Your task to perform on an android device: Open calendar and show me the third week of next month Image 0: 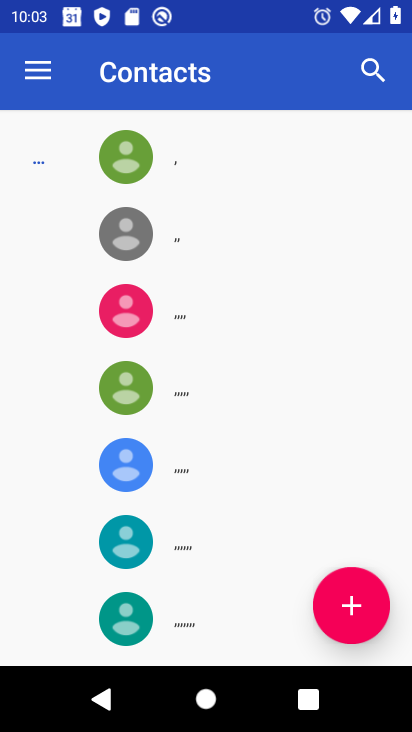
Step 0: press home button
Your task to perform on an android device: Open calendar and show me the third week of next month Image 1: 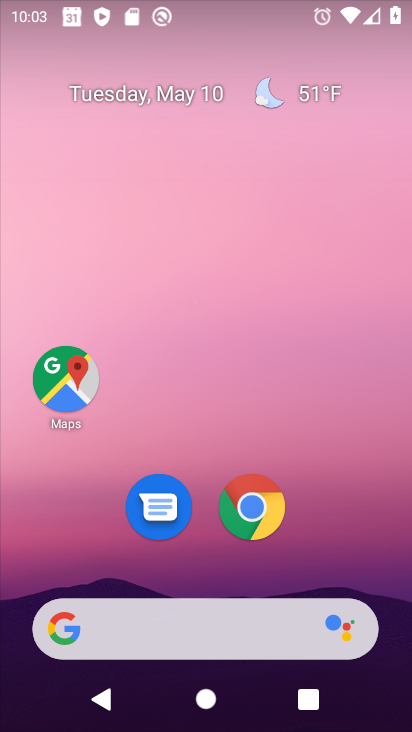
Step 1: click (142, 81)
Your task to perform on an android device: Open calendar and show me the third week of next month Image 2: 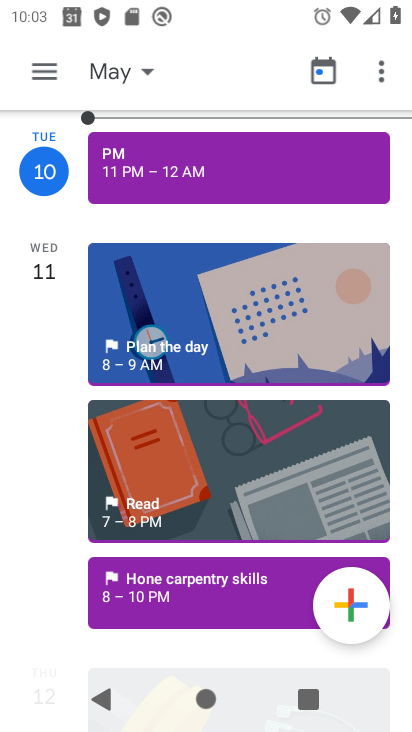
Step 2: click (139, 90)
Your task to perform on an android device: Open calendar and show me the third week of next month Image 3: 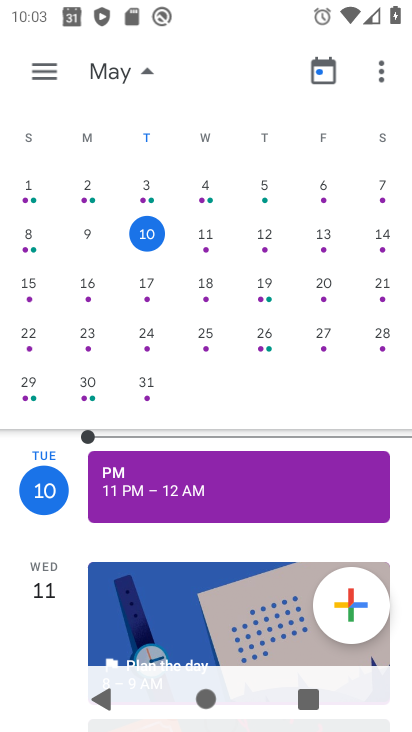
Step 3: click (370, 62)
Your task to perform on an android device: Open calendar and show me the third week of next month Image 4: 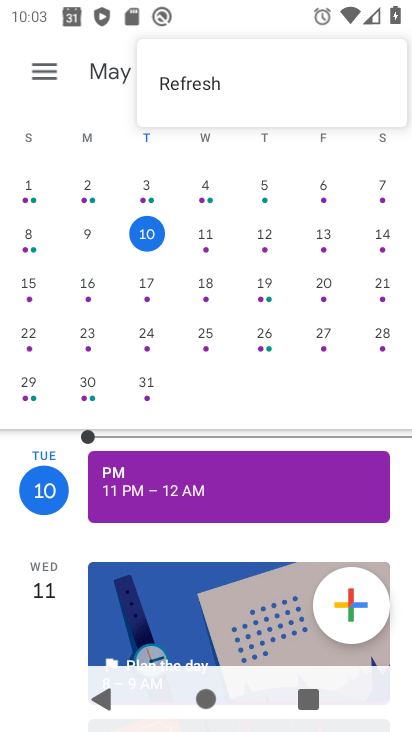
Step 4: drag from (339, 399) to (5, 570)
Your task to perform on an android device: Open calendar and show me the third week of next month Image 5: 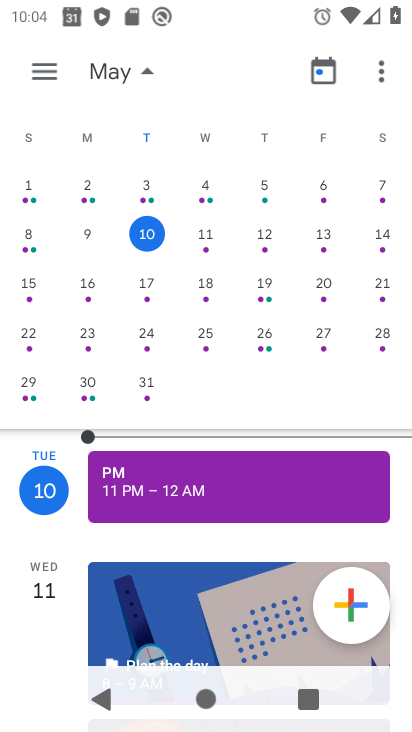
Step 5: drag from (353, 411) to (5, 423)
Your task to perform on an android device: Open calendar and show me the third week of next month Image 6: 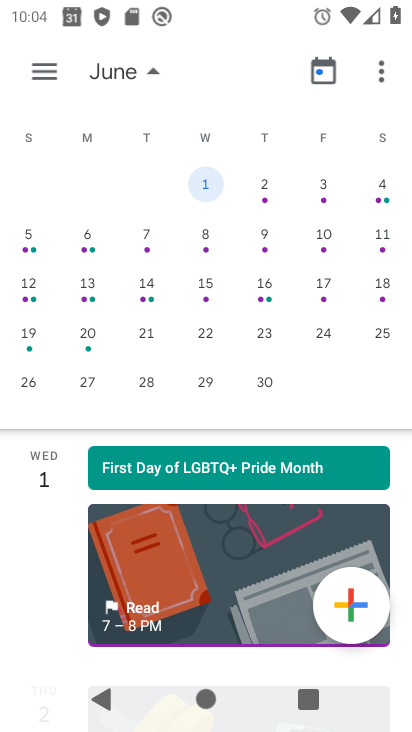
Step 6: click (269, 296)
Your task to perform on an android device: Open calendar and show me the third week of next month Image 7: 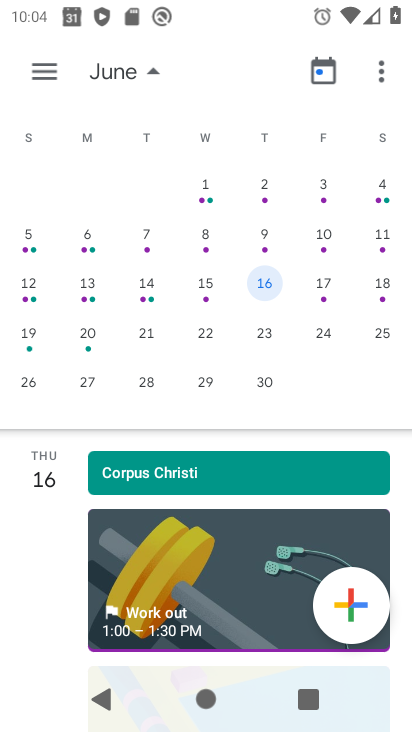
Step 7: task complete